Your task to perform on an android device: set default search engine in the chrome app Image 0: 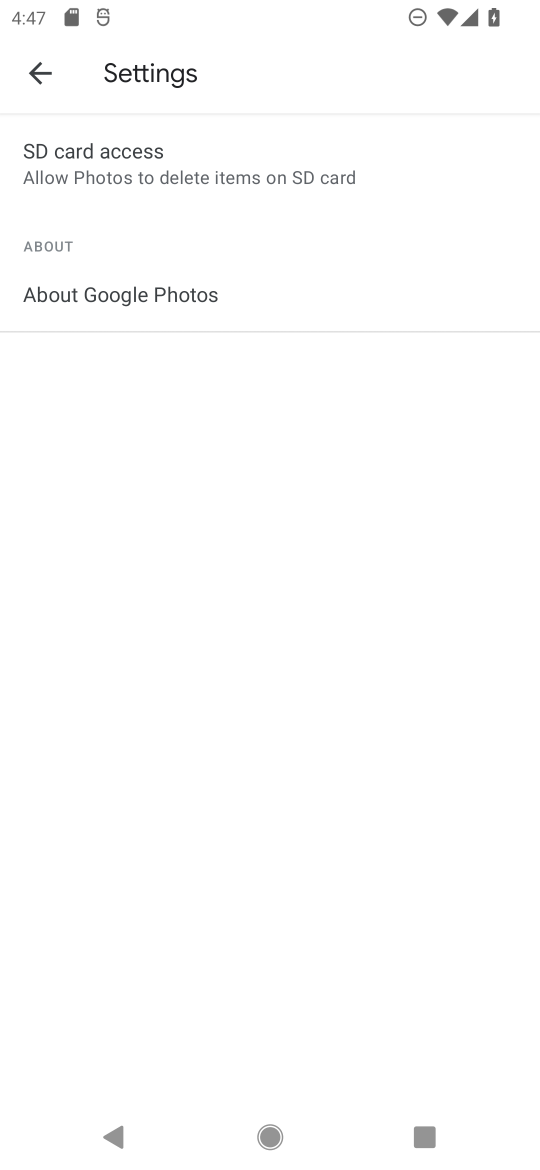
Step 0: press home button
Your task to perform on an android device: set default search engine in the chrome app Image 1: 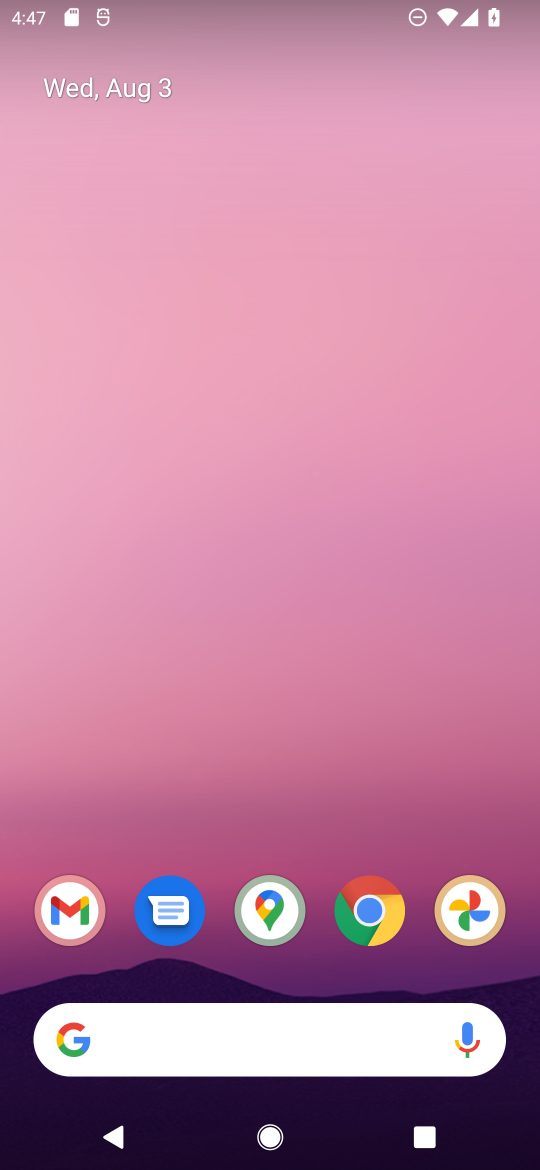
Step 1: click (371, 917)
Your task to perform on an android device: set default search engine in the chrome app Image 2: 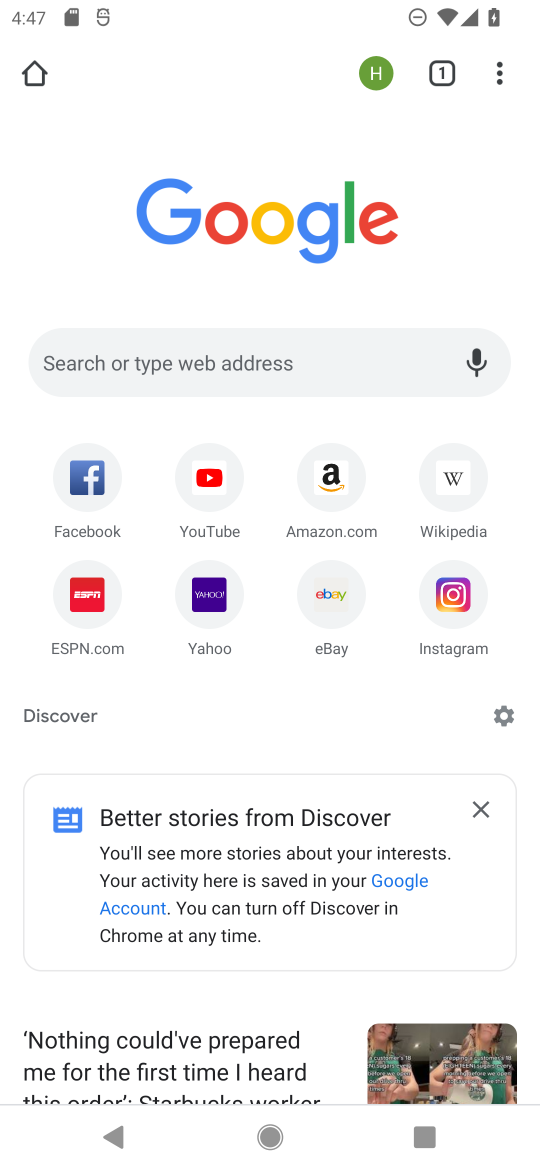
Step 2: click (499, 70)
Your task to perform on an android device: set default search engine in the chrome app Image 3: 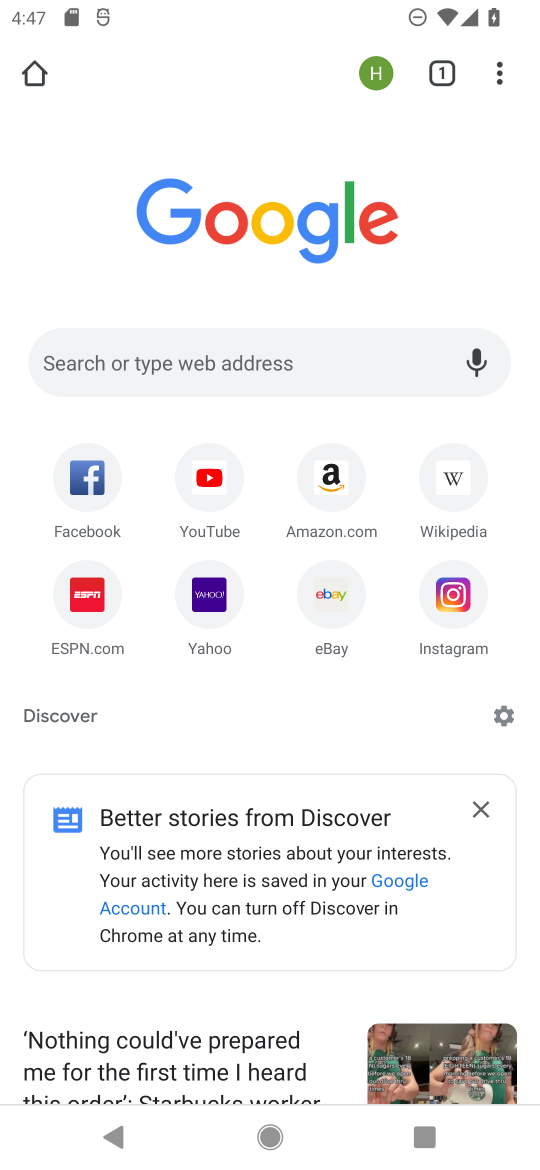
Step 3: click (494, 79)
Your task to perform on an android device: set default search engine in the chrome app Image 4: 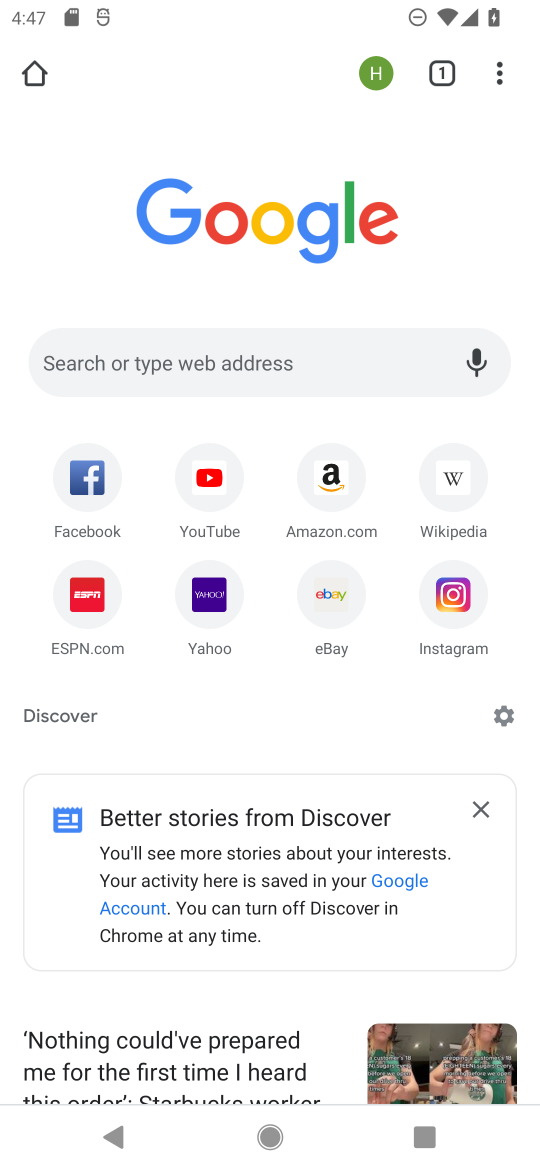
Step 4: click (497, 67)
Your task to perform on an android device: set default search engine in the chrome app Image 5: 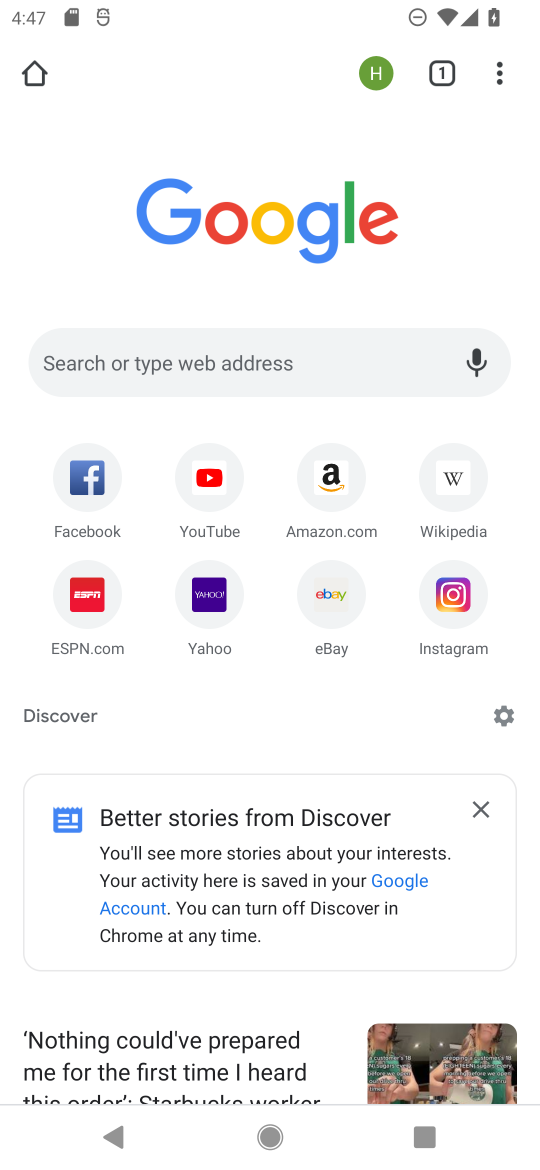
Step 5: click (500, 70)
Your task to perform on an android device: set default search engine in the chrome app Image 6: 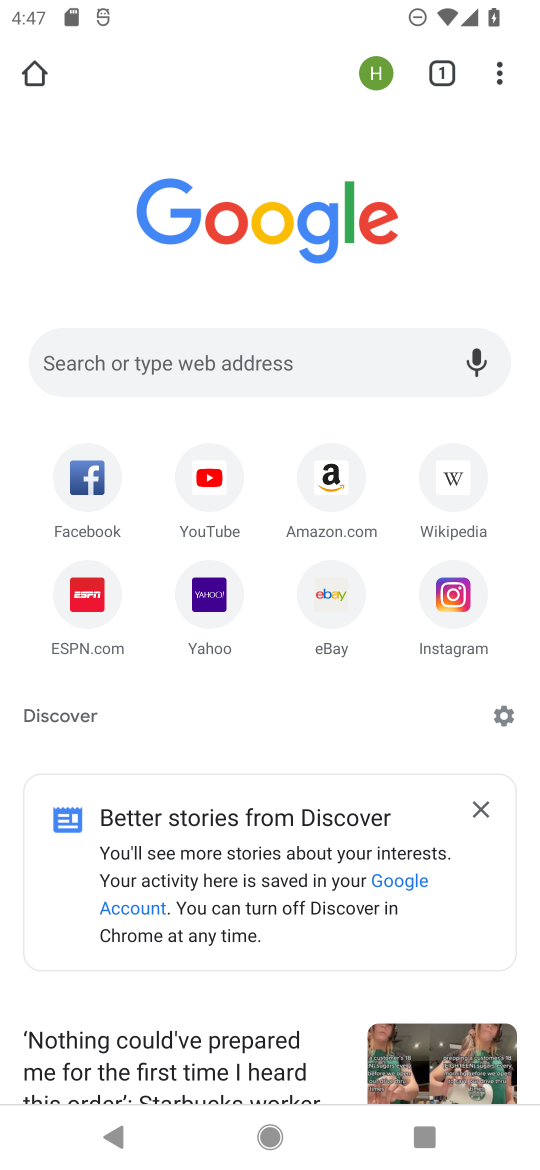
Step 6: click (495, 69)
Your task to perform on an android device: set default search engine in the chrome app Image 7: 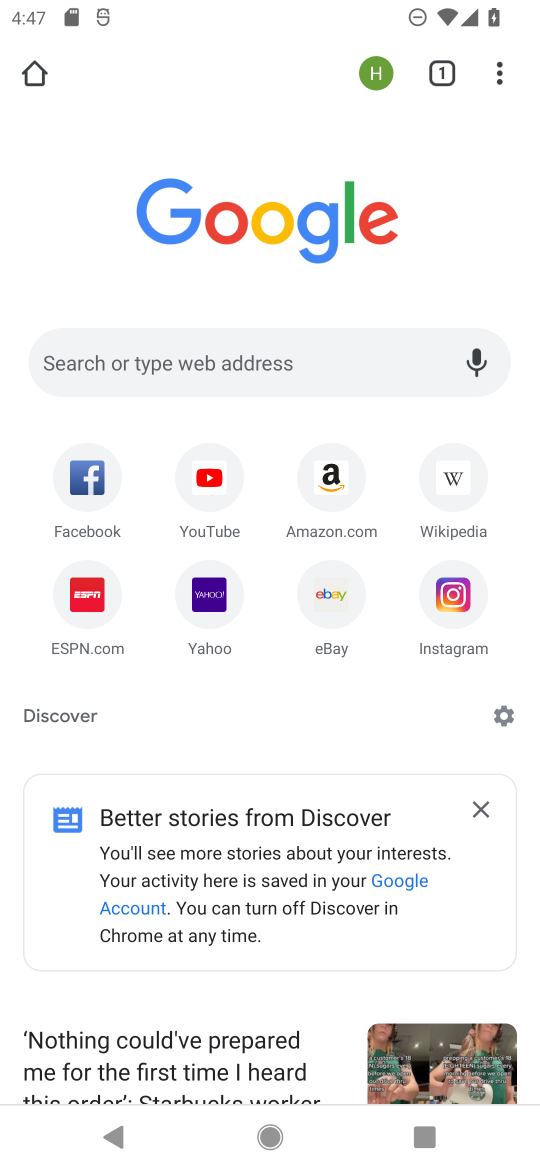
Step 7: click (496, 79)
Your task to perform on an android device: set default search engine in the chrome app Image 8: 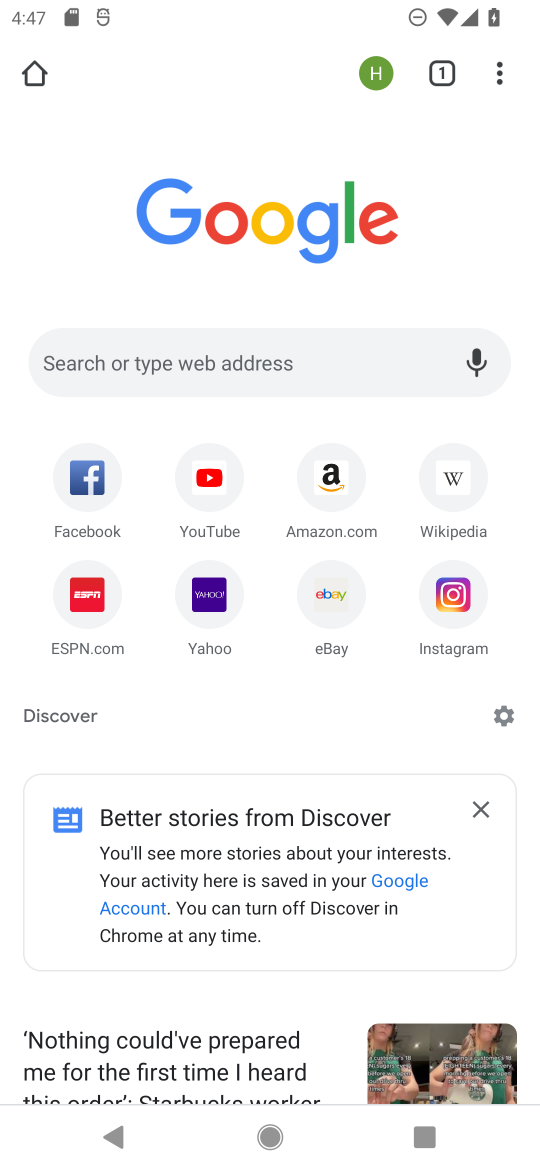
Step 8: click (488, 76)
Your task to perform on an android device: set default search engine in the chrome app Image 9: 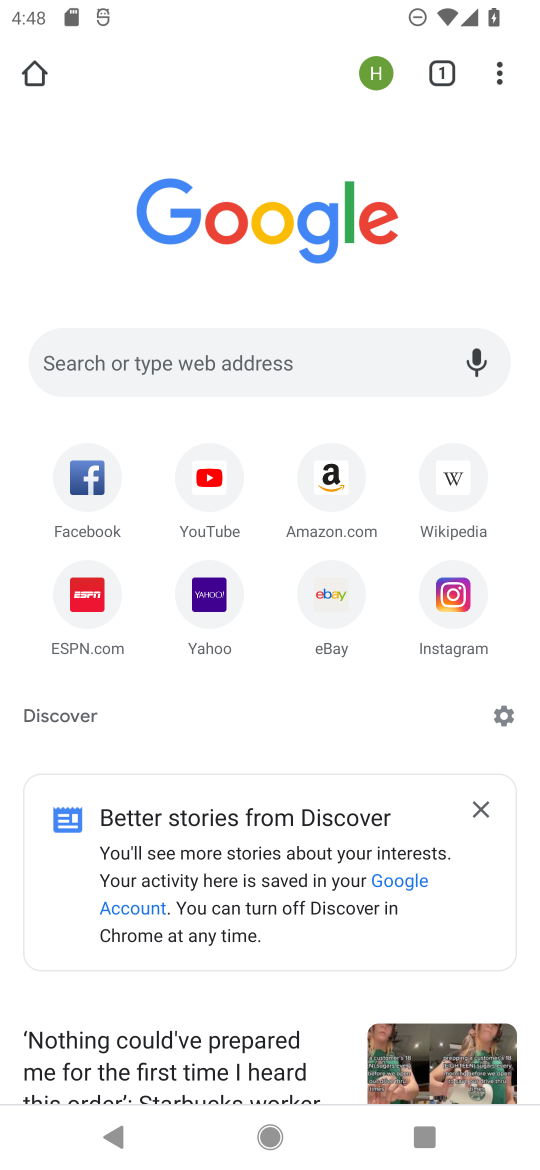
Step 9: task complete